Your task to perform on an android device: Open Google Chrome and open the bookmarks view Image 0: 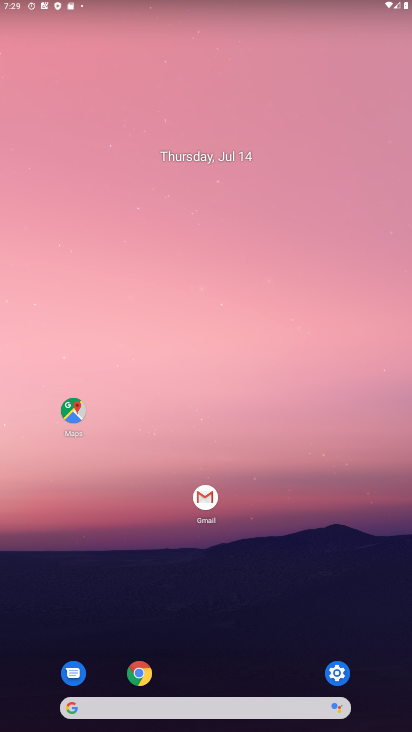
Step 0: click (148, 676)
Your task to perform on an android device: Open Google Chrome and open the bookmarks view Image 1: 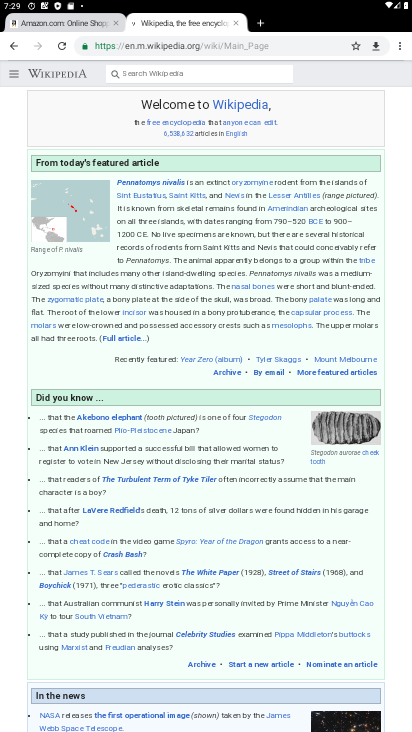
Step 1: click (400, 47)
Your task to perform on an android device: Open Google Chrome and open the bookmarks view Image 2: 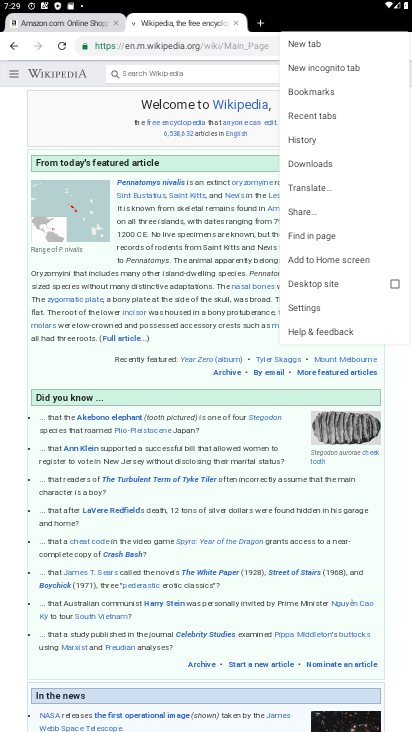
Step 2: click (310, 93)
Your task to perform on an android device: Open Google Chrome and open the bookmarks view Image 3: 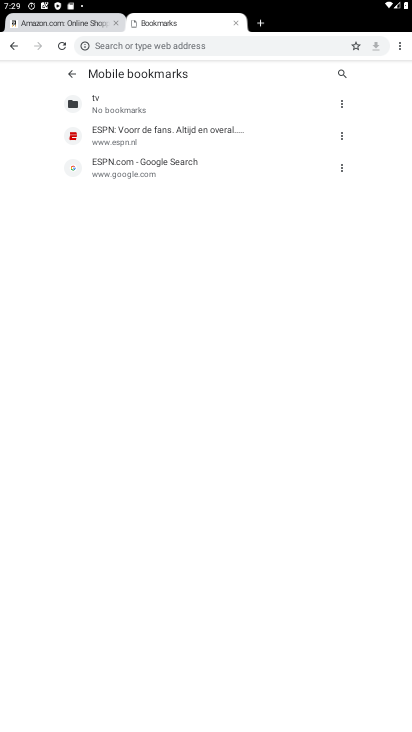
Step 3: task complete